Your task to perform on an android device: Turn on the flashlight Image 0: 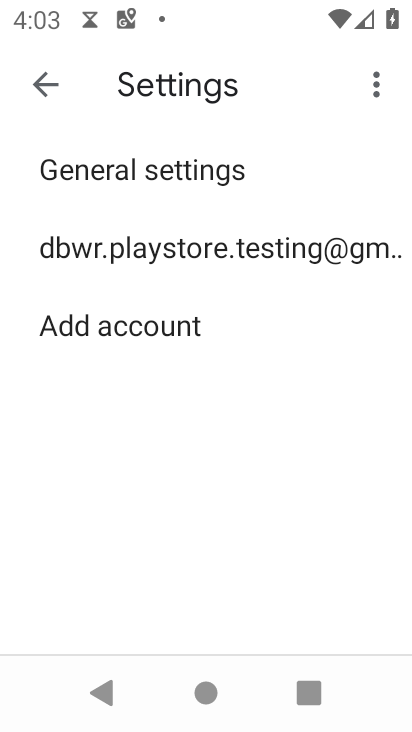
Step 0: click (212, 694)
Your task to perform on an android device: Turn on the flashlight Image 1: 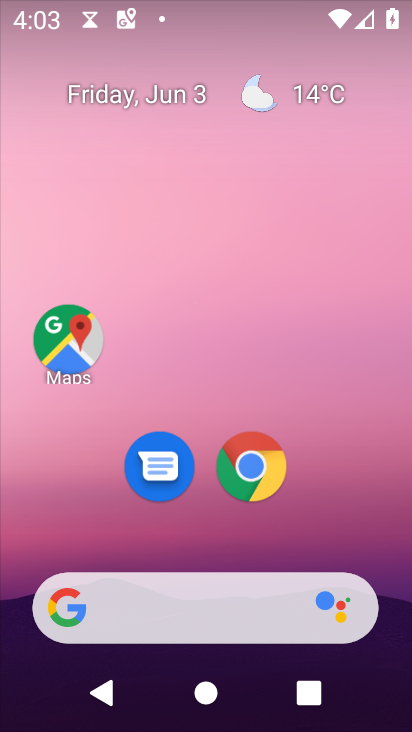
Step 1: drag from (362, 549) to (233, 19)
Your task to perform on an android device: Turn on the flashlight Image 2: 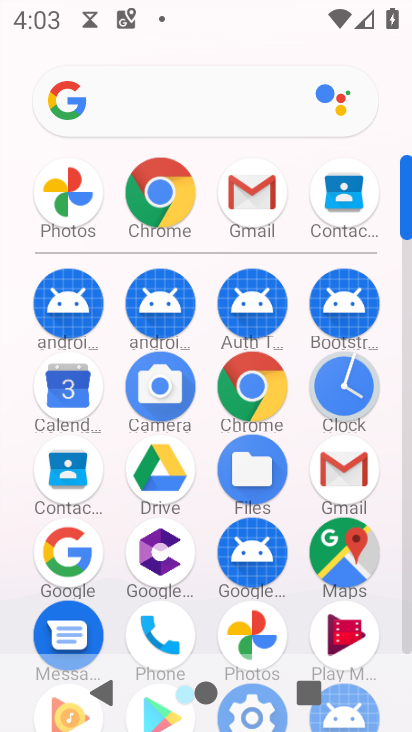
Step 2: drag from (207, 598) to (191, 335)
Your task to perform on an android device: Turn on the flashlight Image 3: 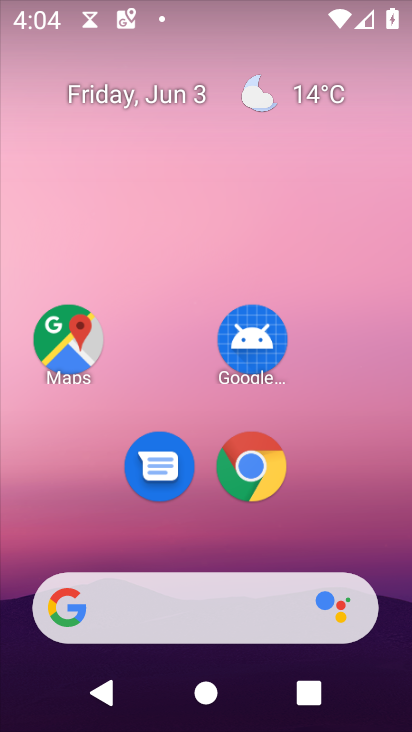
Step 3: drag from (359, 521) to (320, 128)
Your task to perform on an android device: Turn on the flashlight Image 4: 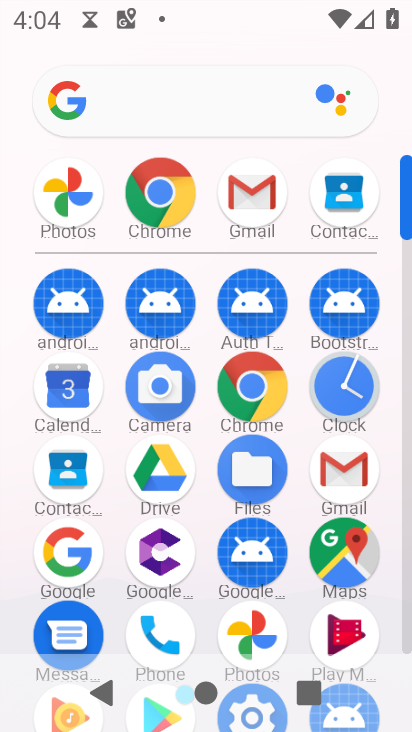
Step 4: drag from (207, 650) to (227, 338)
Your task to perform on an android device: Turn on the flashlight Image 5: 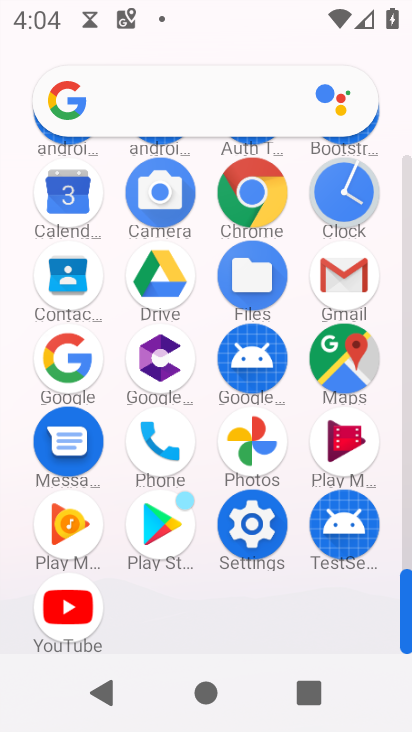
Step 5: click (247, 540)
Your task to perform on an android device: Turn on the flashlight Image 6: 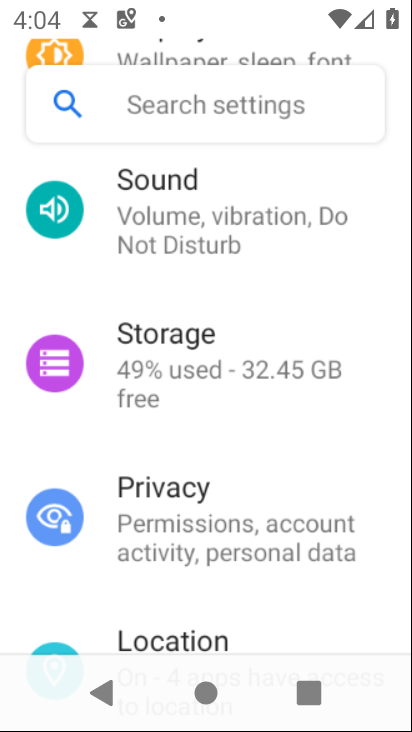
Step 6: task complete